Your task to perform on an android device: turn on location history Image 0: 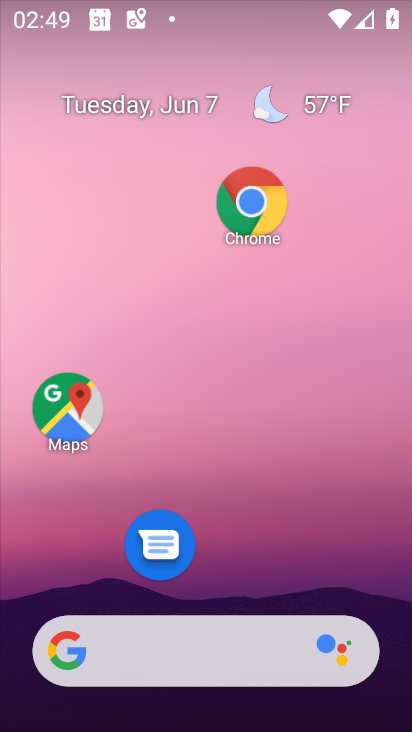
Step 0: drag from (264, 585) to (256, 226)
Your task to perform on an android device: turn on location history Image 1: 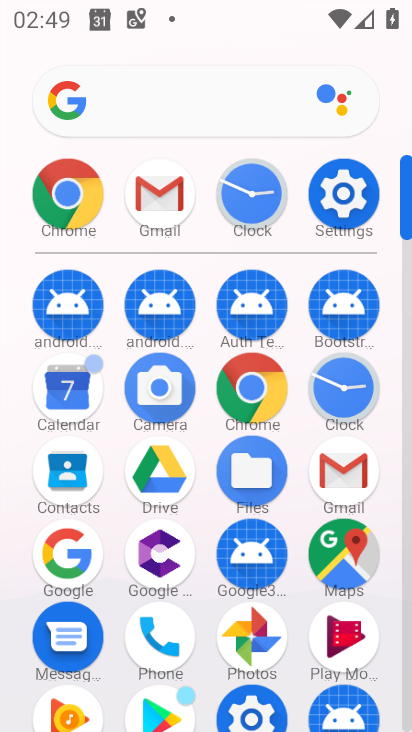
Step 1: click (343, 189)
Your task to perform on an android device: turn on location history Image 2: 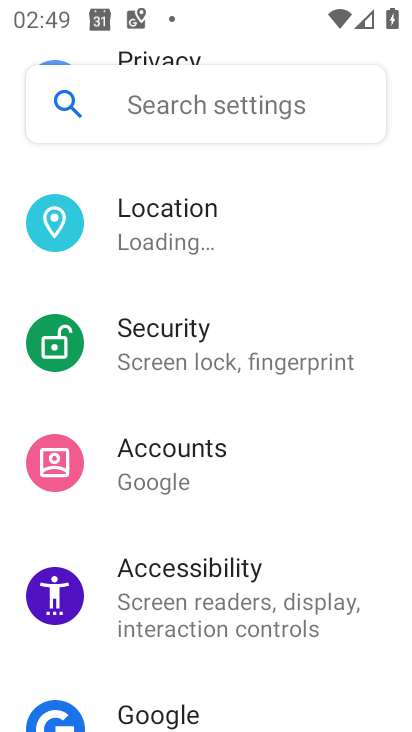
Step 2: click (175, 226)
Your task to perform on an android device: turn on location history Image 3: 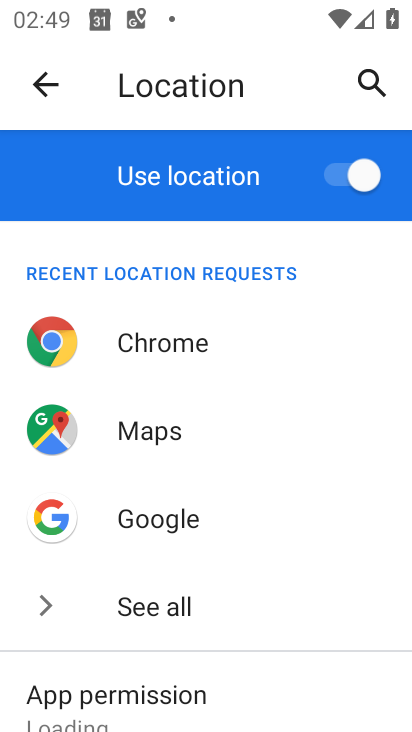
Step 3: drag from (159, 563) to (159, 288)
Your task to perform on an android device: turn on location history Image 4: 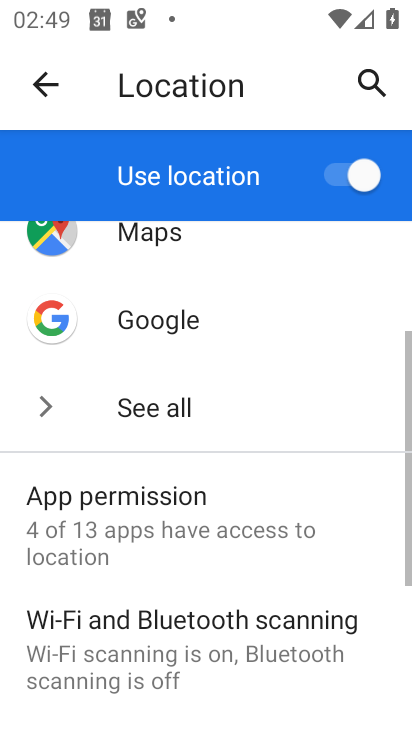
Step 4: drag from (209, 640) to (212, 349)
Your task to perform on an android device: turn on location history Image 5: 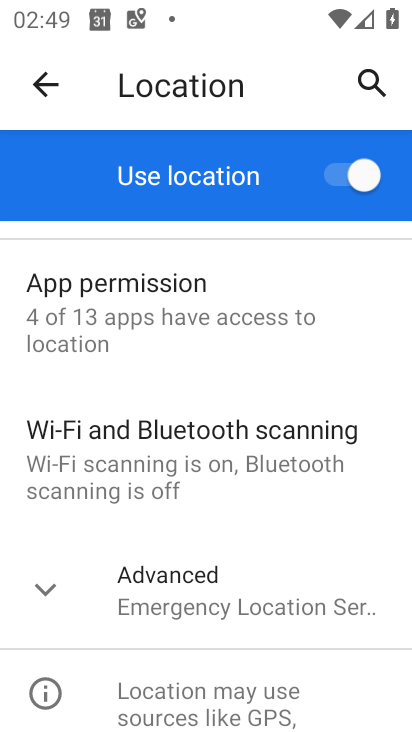
Step 5: click (221, 616)
Your task to perform on an android device: turn on location history Image 6: 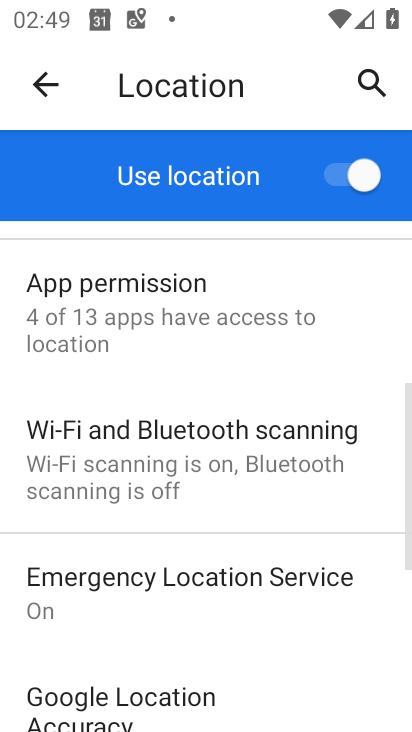
Step 6: drag from (214, 578) to (245, 316)
Your task to perform on an android device: turn on location history Image 7: 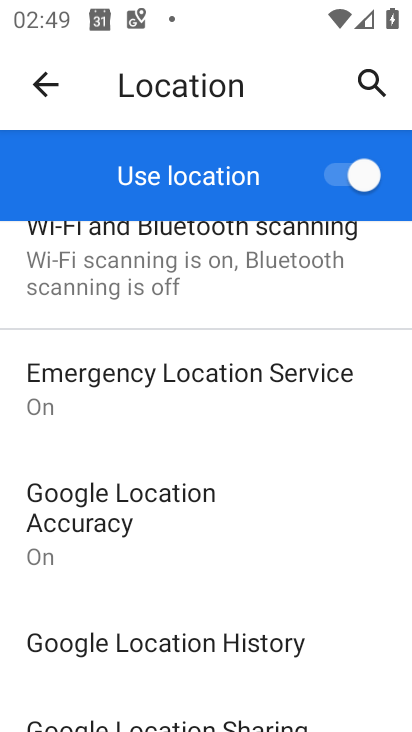
Step 7: click (188, 653)
Your task to perform on an android device: turn on location history Image 8: 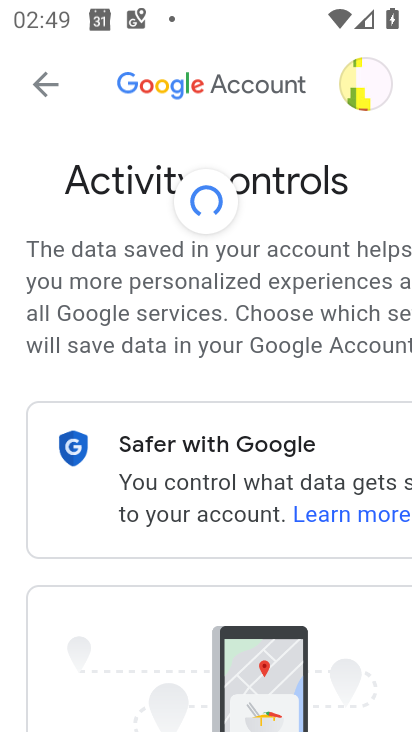
Step 8: drag from (227, 616) to (276, 208)
Your task to perform on an android device: turn on location history Image 9: 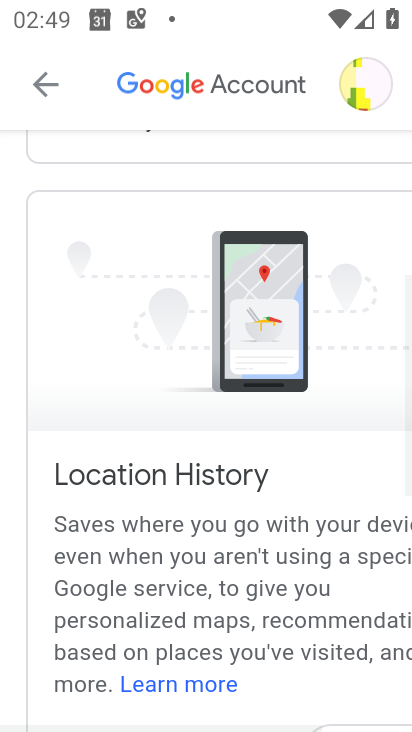
Step 9: drag from (281, 627) to (277, 338)
Your task to perform on an android device: turn on location history Image 10: 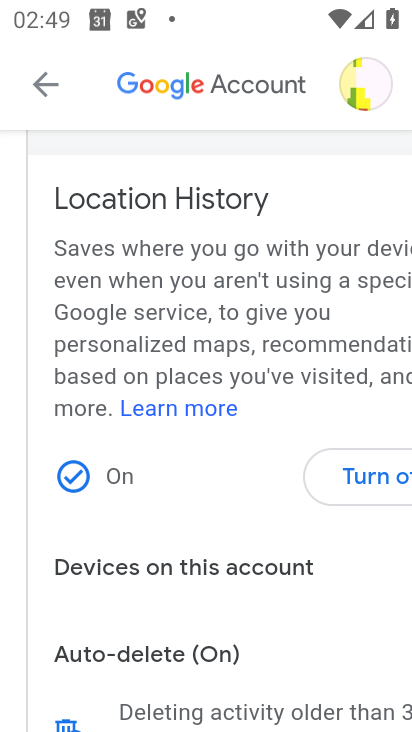
Step 10: click (365, 478)
Your task to perform on an android device: turn on location history Image 11: 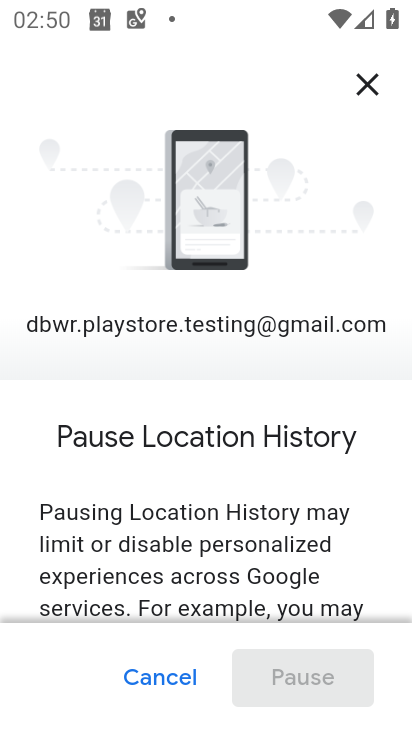
Step 11: task complete